Your task to perform on an android device: View the shopping cart on bestbuy.com. Add macbook pro 15 inch to the cart on bestbuy.com Image 0: 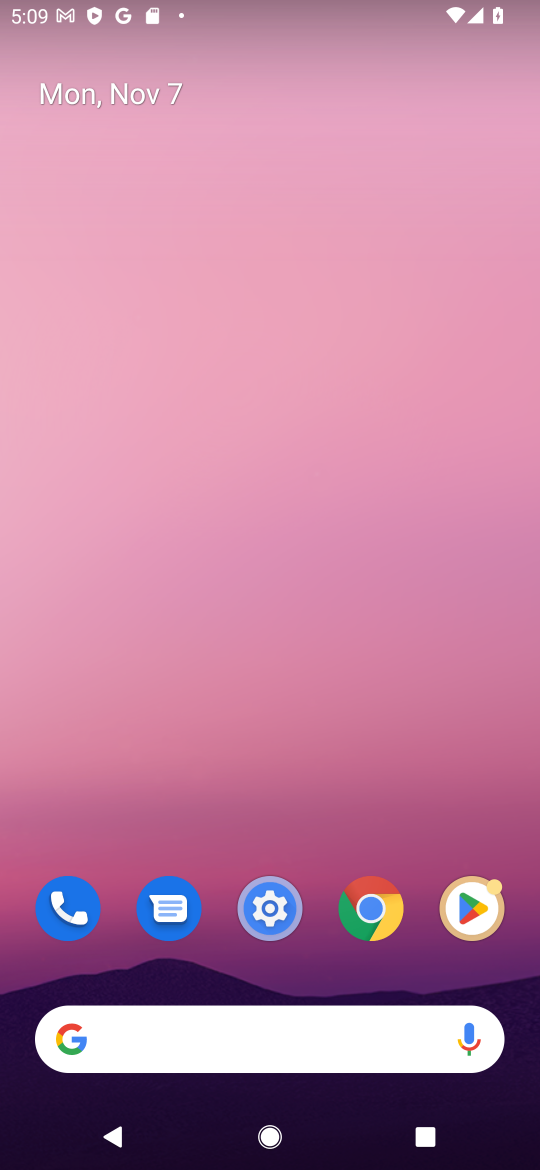
Step 0: click (205, 1019)
Your task to perform on an android device: View the shopping cart on bestbuy.com. Add macbook pro 15 inch to the cart on bestbuy.com Image 1: 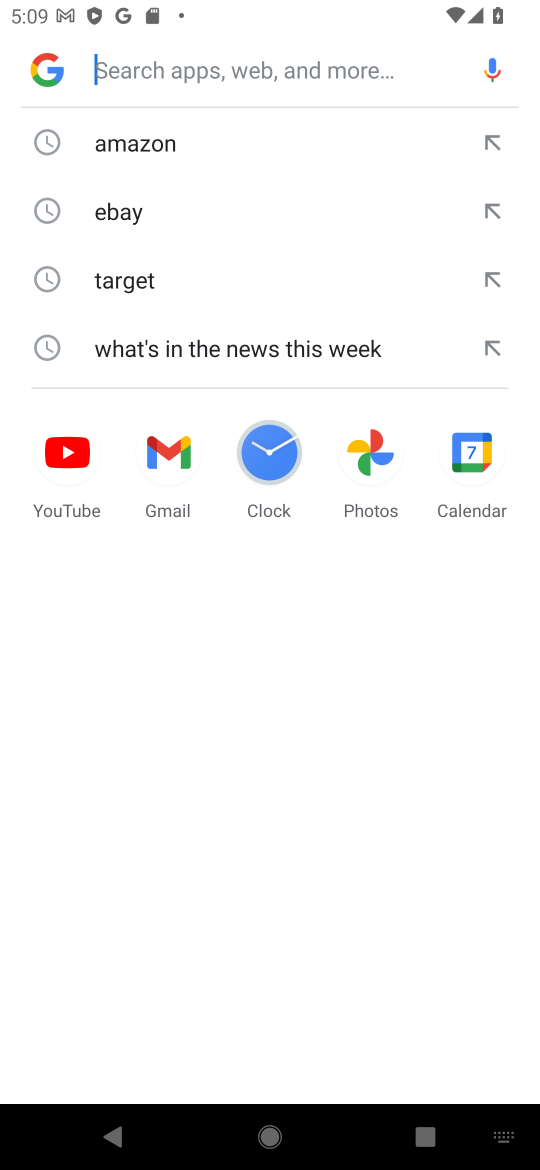
Step 1: type "bestbuy"
Your task to perform on an android device: View the shopping cart on bestbuy.com. Add macbook pro 15 inch to the cart on bestbuy.com Image 2: 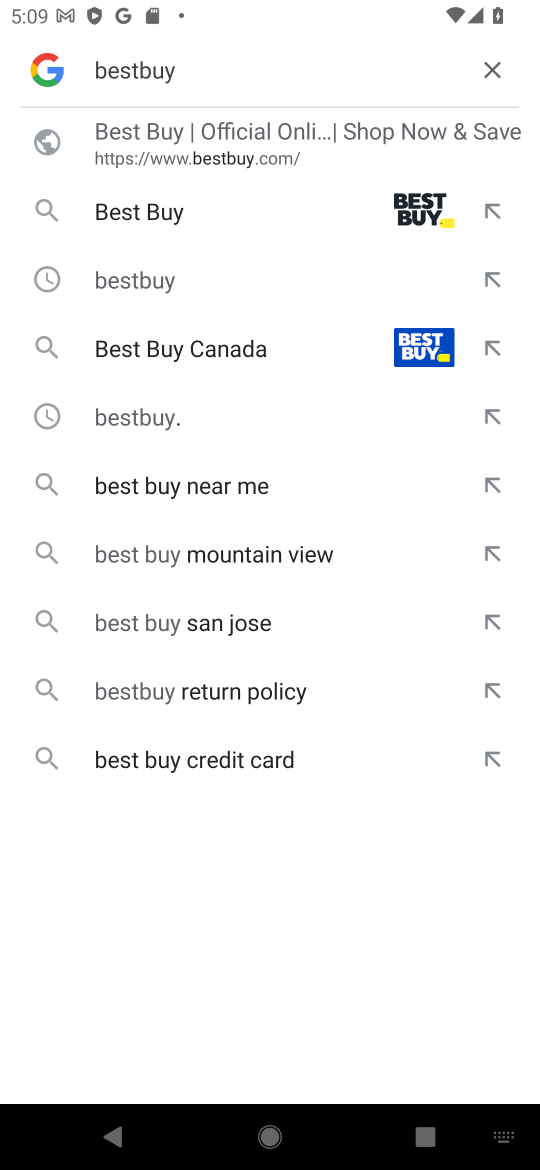
Step 2: click (214, 214)
Your task to perform on an android device: View the shopping cart on bestbuy.com. Add macbook pro 15 inch to the cart on bestbuy.com Image 3: 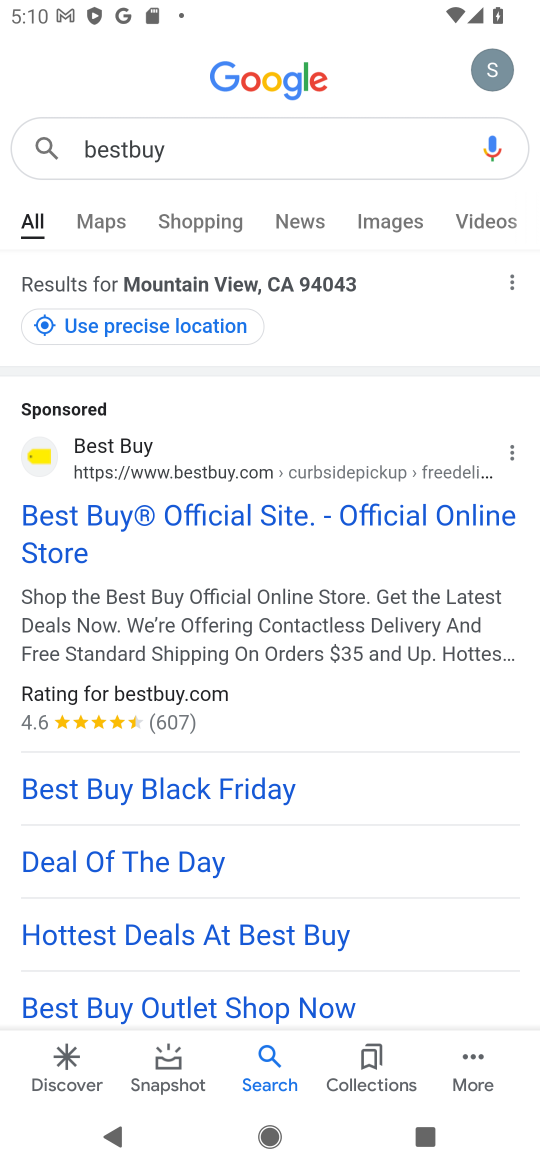
Step 3: click (91, 518)
Your task to perform on an android device: View the shopping cart on bestbuy.com. Add macbook pro 15 inch to the cart on bestbuy.com Image 4: 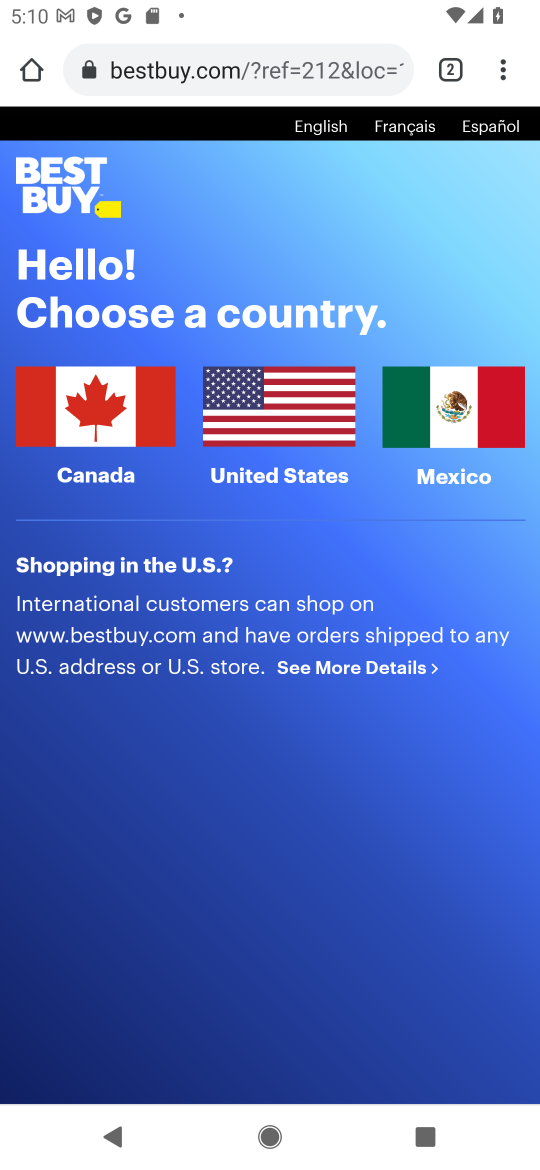
Step 4: click (91, 518)
Your task to perform on an android device: View the shopping cart on bestbuy.com. Add macbook pro 15 inch to the cart on bestbuy.com Image 5: 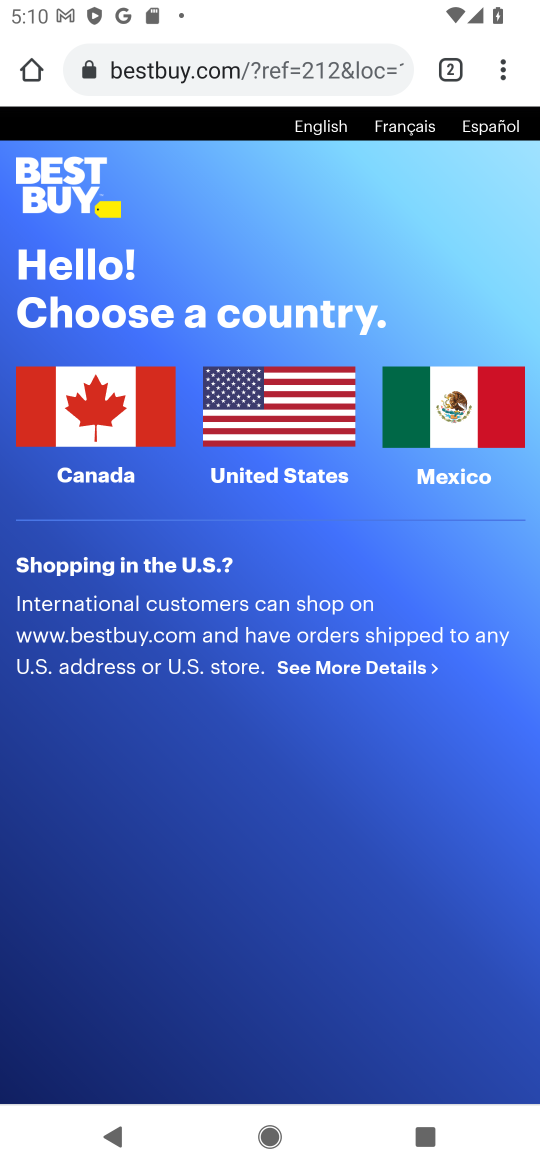
Step 5: click (90, 444)
Your task to perform on an android device: View the shopping cart on bestbuy.com. Add macbook pro 15 inch to the cart on bestbuy.com Image 6: 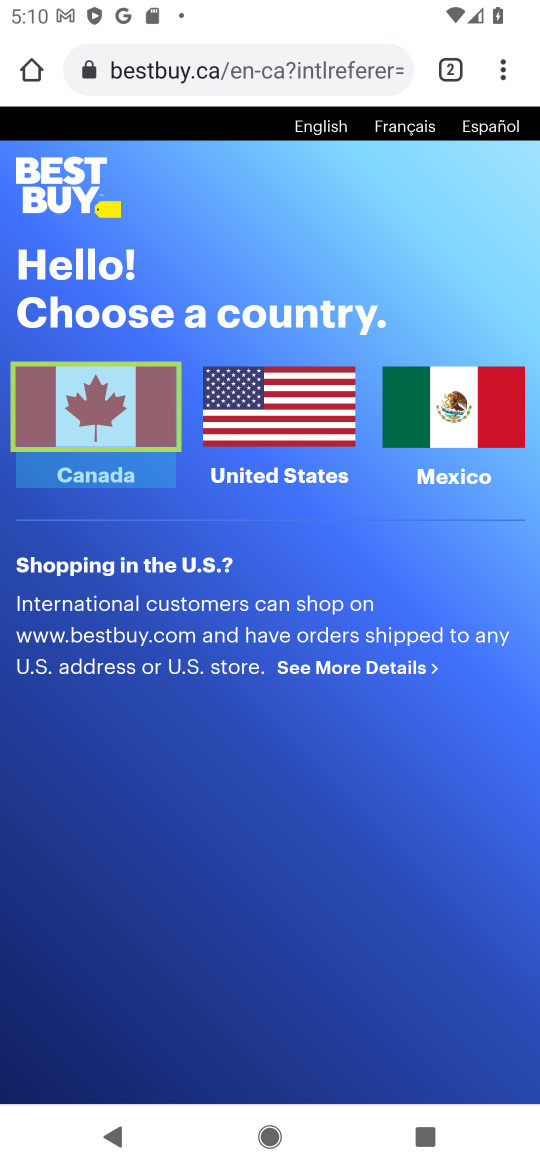
Step 6: task complete